Your task to perform on an android device: change timer sound Image 0: 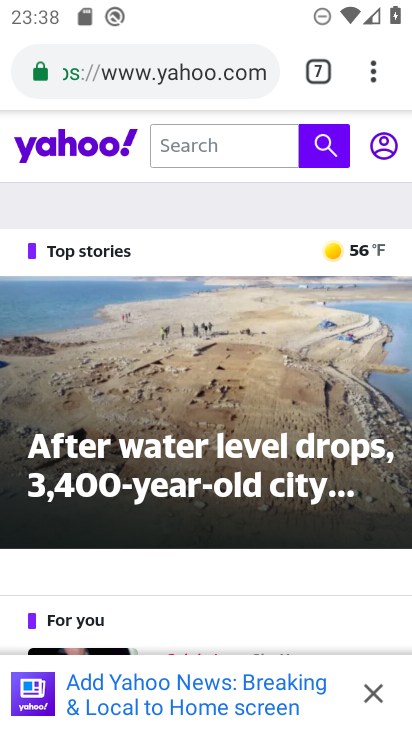
Step 0: press home button
Your task to perform on an android device: change timer sound Image 1: 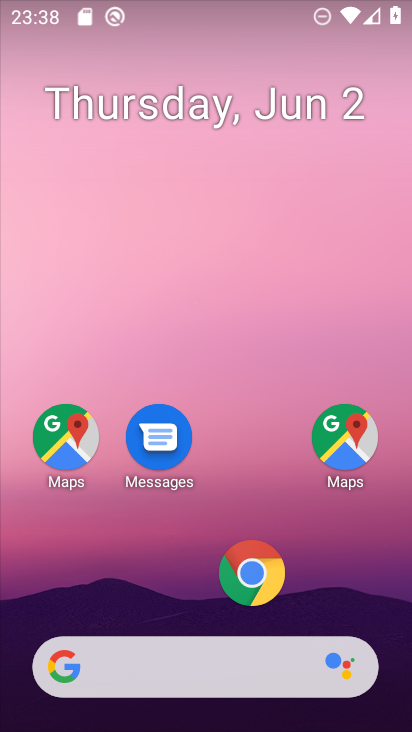
Step 1: click (275, 384)
Your task to perform on an android device: change timer sound Image 2: 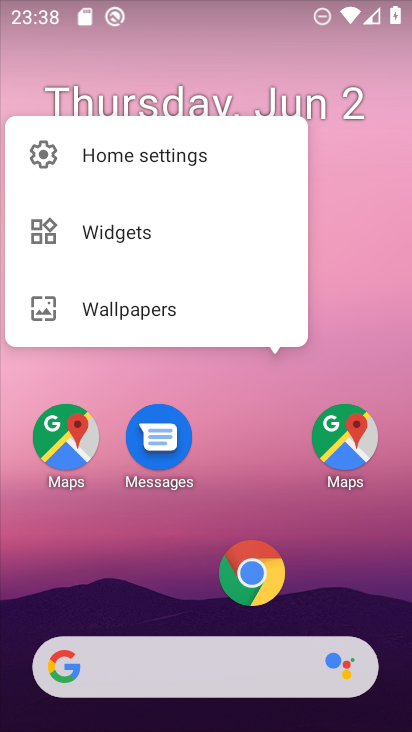
Step 2: press home button
Your task to perform on an android device: change timer sound Image 3: 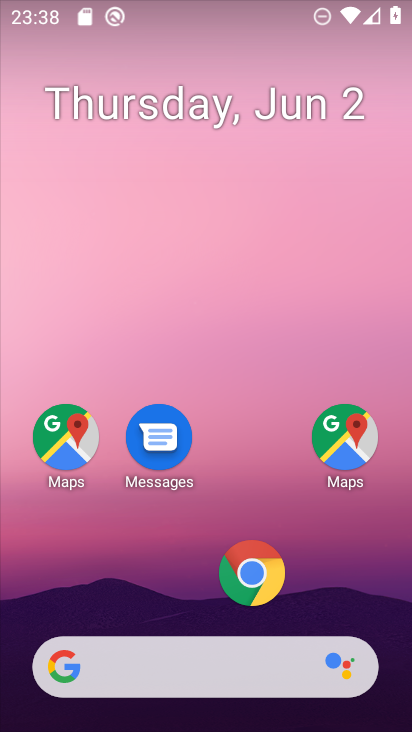
Step 3: drag from (236, 377) to (230, 166)
Your task to perform on an android device: change timer sound Image 4: 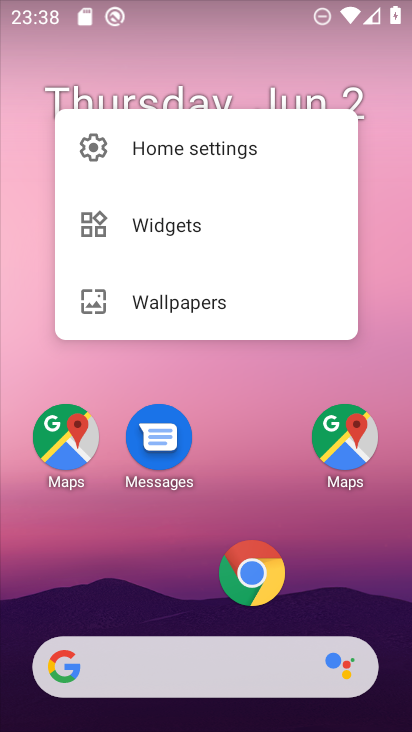
Step 4: press back button
Your task to perform on an android device: change timer sound Image 5: 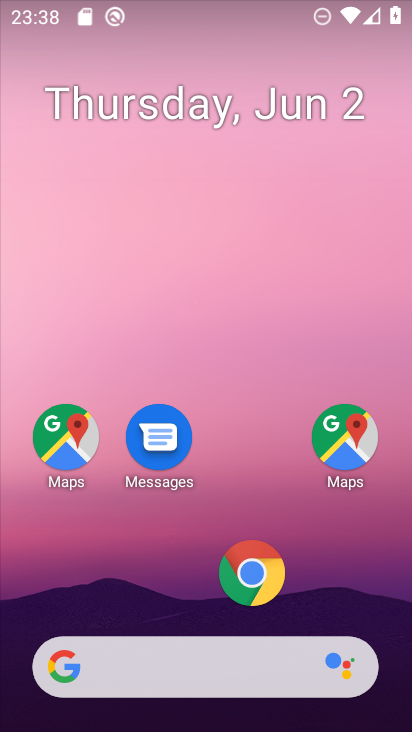
Step 5: drag from (394, 702) to (341, 396)
Your task to perform on an android device: change timer sound Image 6: 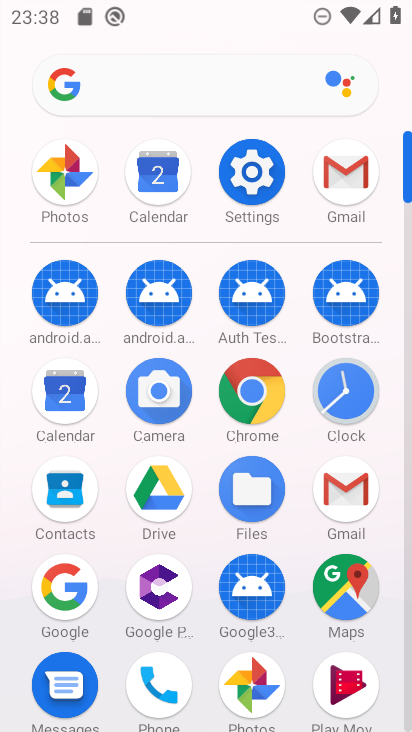
Step 6: click (250, 189)
Your task to perform on an android device: change timer sound Image 7: 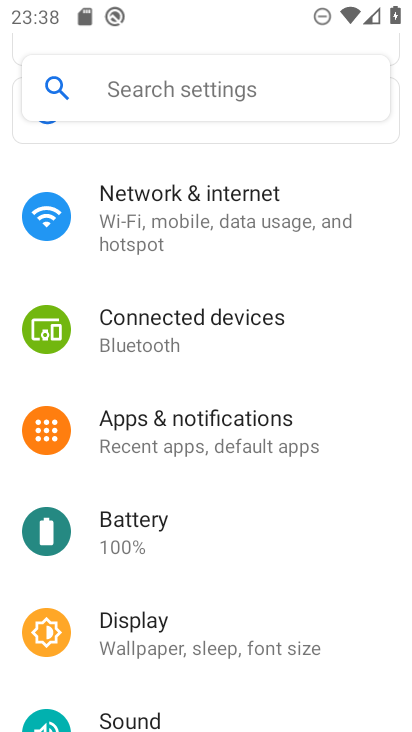
Step 7: press home button
Your task to perform on an android device: change timer sound Image 8: 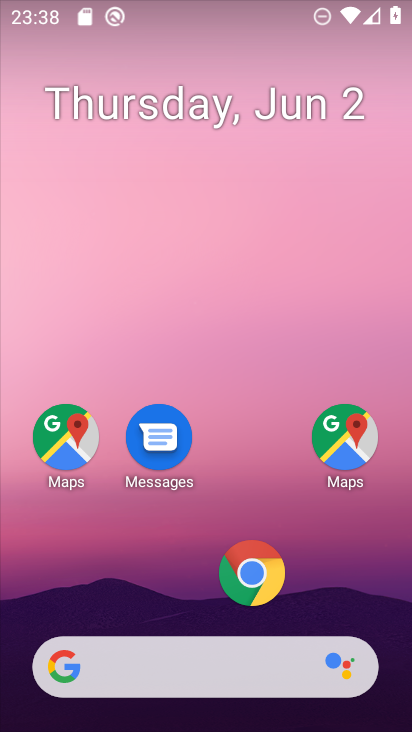
Step 8: drag from (366, 591) to (389, 165)
Your task to perform on an android device: change timer sound Image 9: 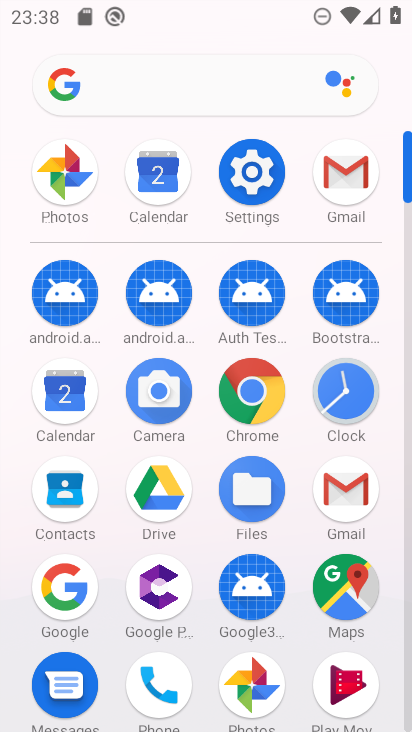
Step 9: click (326, 381)
Your task to perform on an android device: change timer sound Image 10: 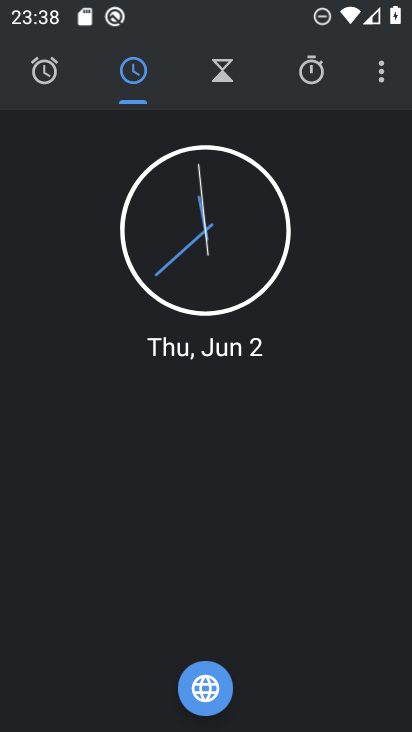
Step 10: click (383, 65)
Your task to perform on an android device: change timer sound Image 11: 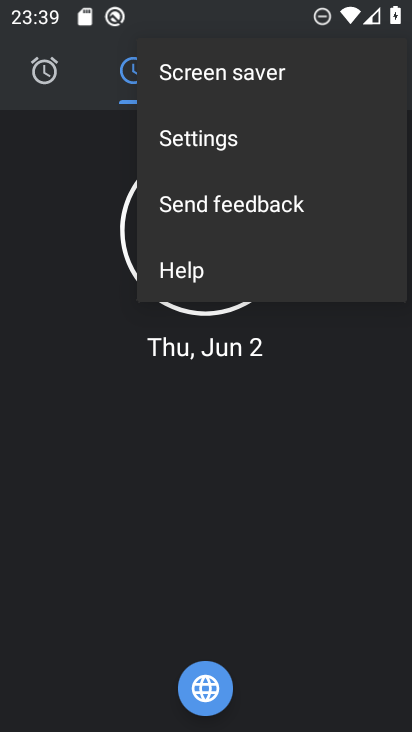
Step 11: click (257, 133)
Your task to perform on an android device: change timer sound Image 12: 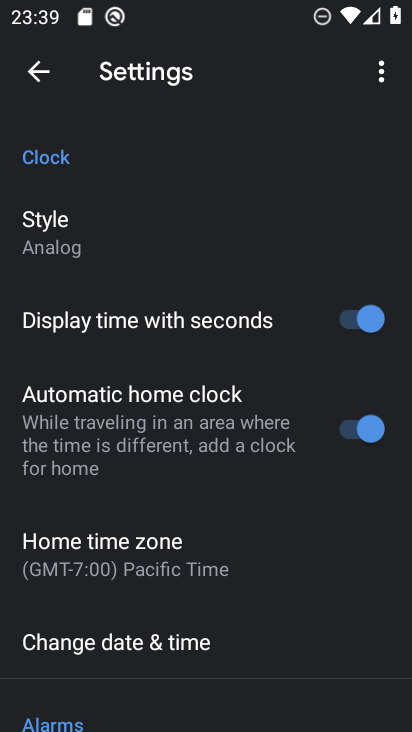
Step 12: click (117, 244)
Your task to perform on an android device: change timer sound Image 13: 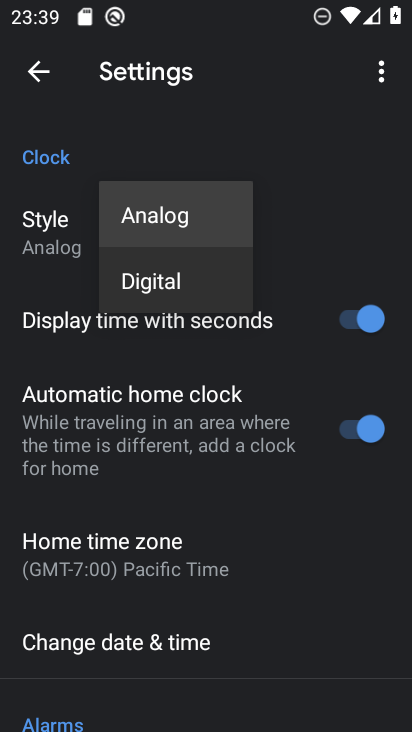
Step 13: press back button
Your task to perform on an android device: change timer sound Image 14: 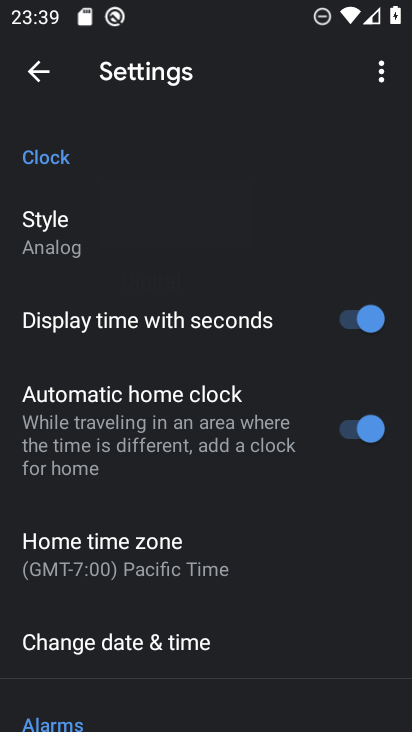
Step 14: press back button
Your task to perform on an android device: change timer sound Image 15: 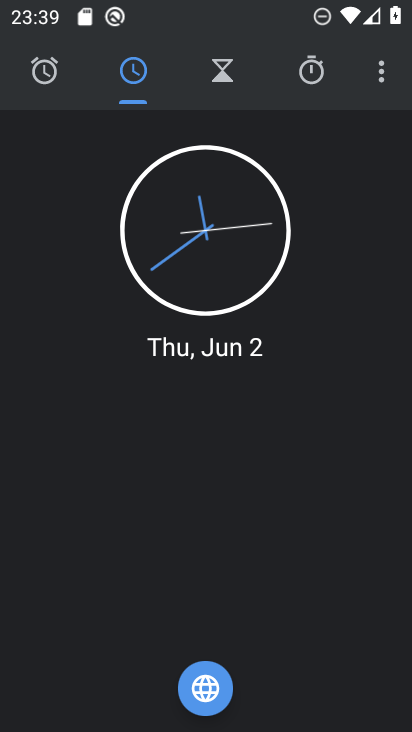
Step 15: click (399, 73)
Your task to perform on an android device: change timer sound Image 16: 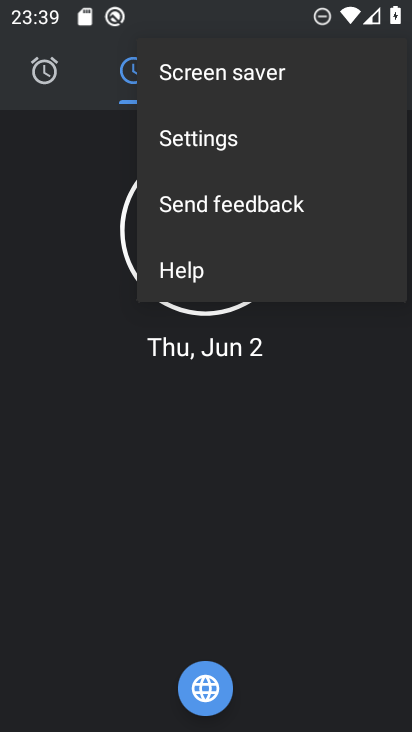
Step 16: click (197, 157)
Your task to perform on an android device: change timer sound Image 17: 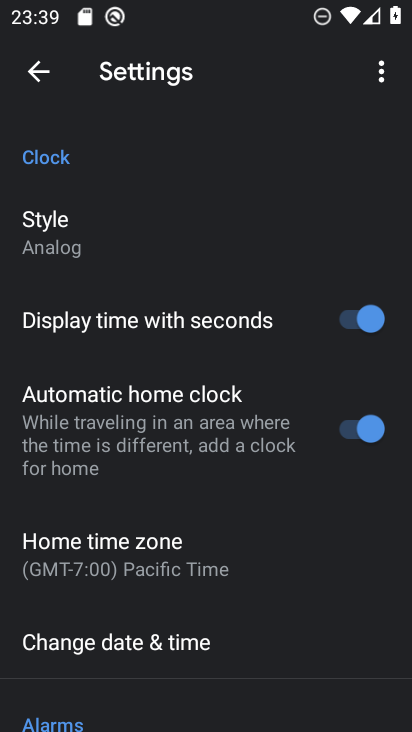
Step 17: drag from (263, 696) to (244, 605)
Your task to perform on an android device: change timer sound Image 18: 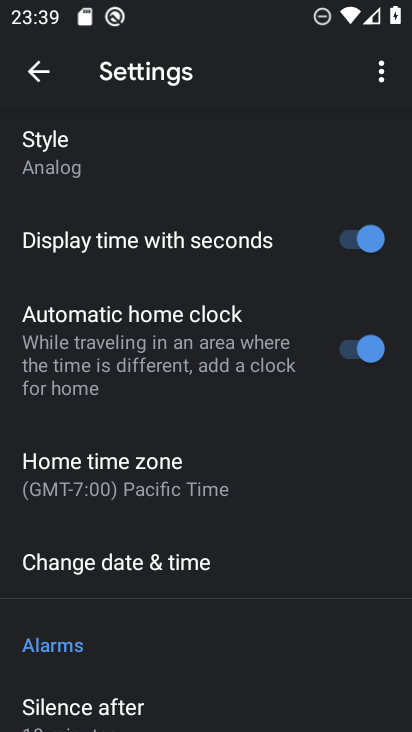
Step 18: drag from (221, 650) to (209, 499)
Your task to perform on an android device: change timer sound Image 19: 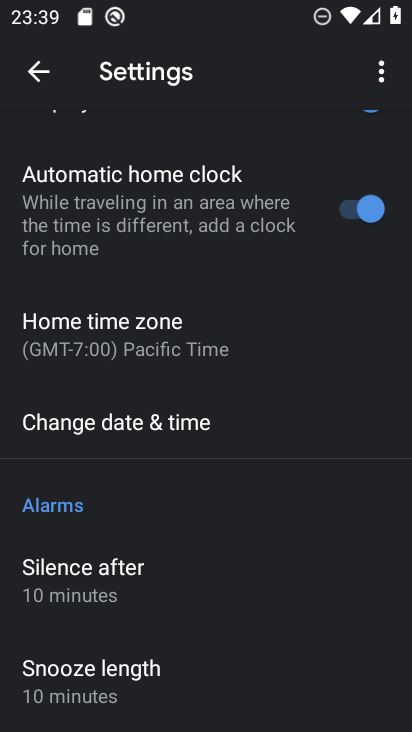
Step 19: drag from (235, 508) to (225, 165)
Your task to perform on an android device: change timer sound Image 20: 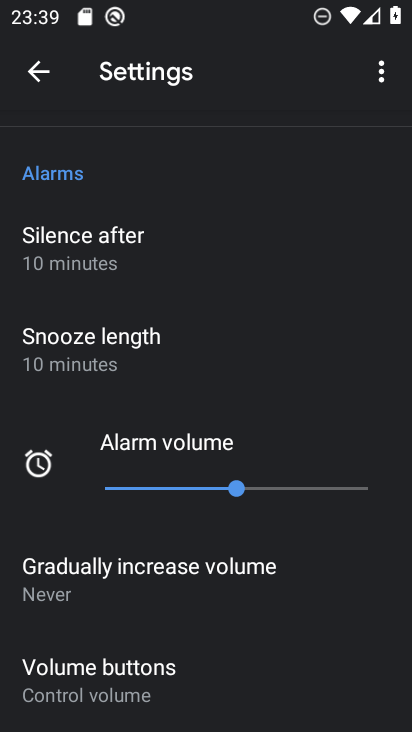
Step 20: drag from (203, 615) to (190, 303)
Your task to perform on an android device: change timer sound Image 21: 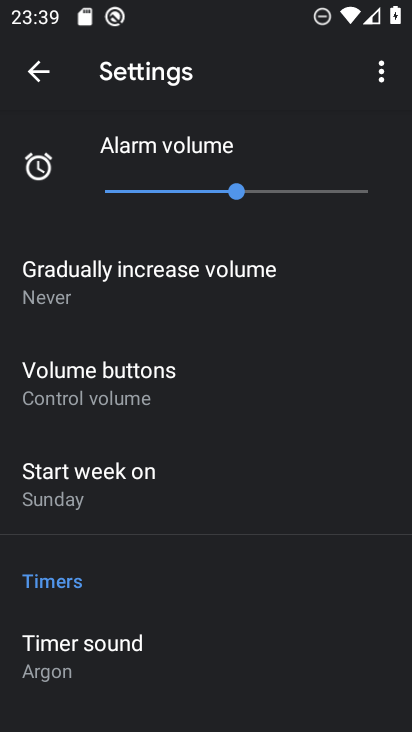
Step 21: click (84, 638)
Your task to perform on an android device: change timer sound Image 22: 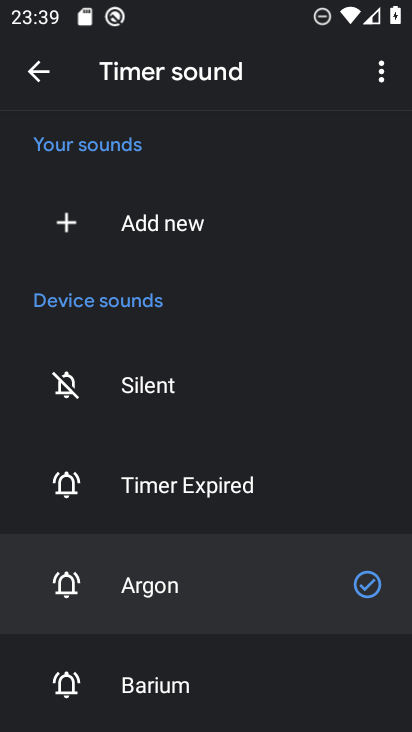
Step 22: click (129, 690)
Your task to perform on an android device: change timer sound Image 23: 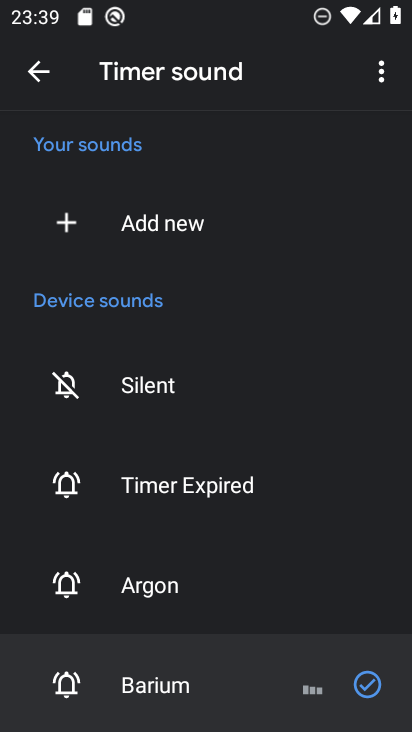
Step 23: task complete